Your task to perform on an android device: open device folders in google photos Image 0: 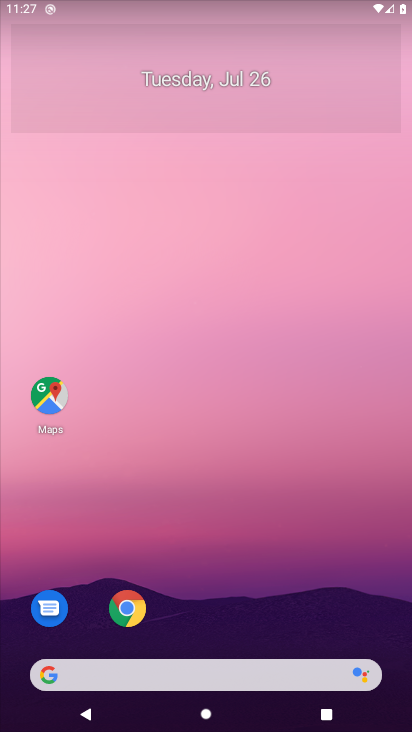
Step 0: press home button
Your task to perform on an android device: open device folders in google photos Image 1: 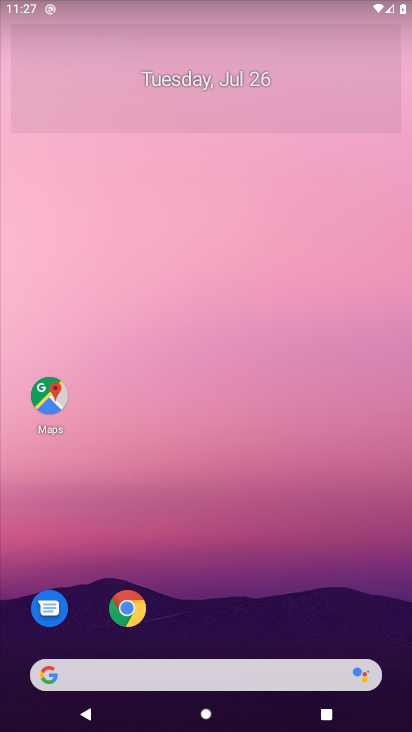
Step 1: drag from (258, 636) to (275, 166)
Your task to perform on an android device: open device folders in google photos Image 2: 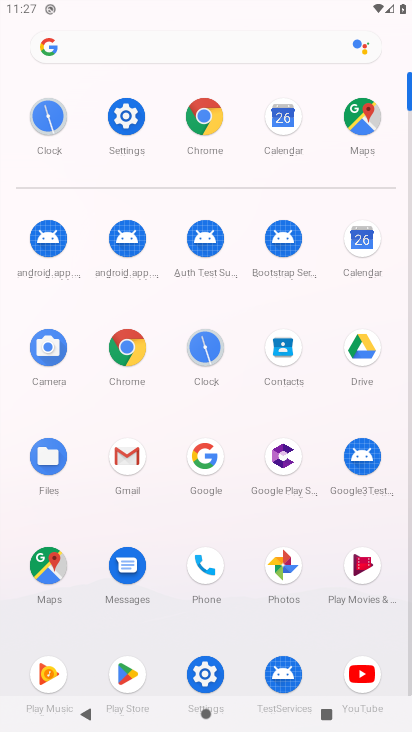
Step 2: click (285, 564)
Your task to perform on an android device: open device folders in google photos Image 3: 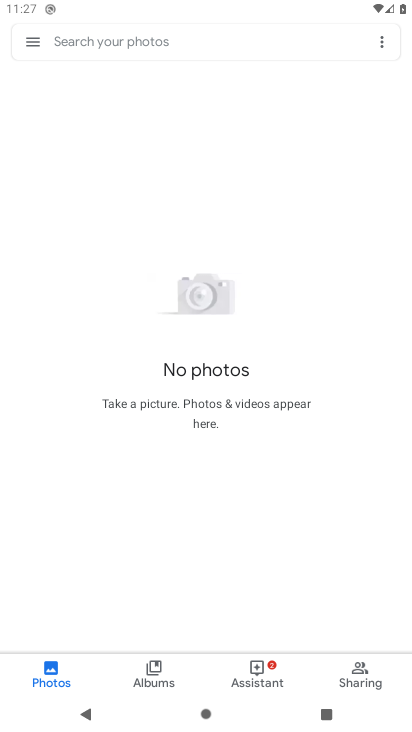
Step 3: click (143, 679)
Your task to perform on an android device: open device folders in google photos Image 4: 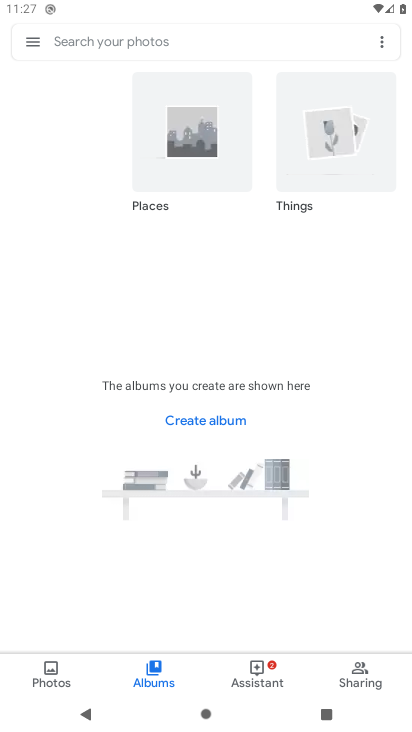
Step 4: click (211, 33)
Your task to perform on an android device: open device folders in google photos Image 5: 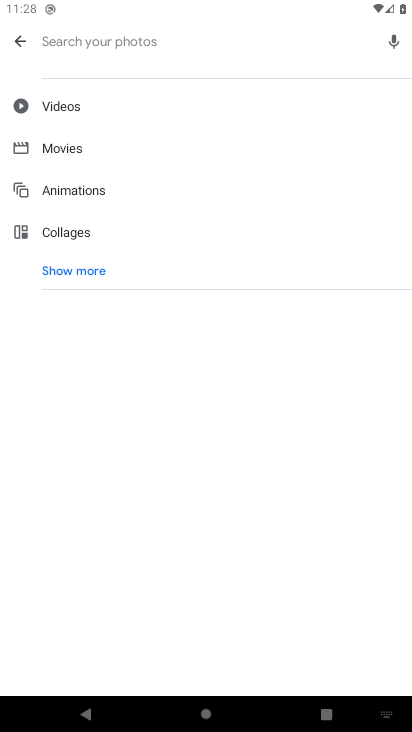
Step 5: type "device folders"
Your task to perform on an android device: open device folders in google photos Image 6: 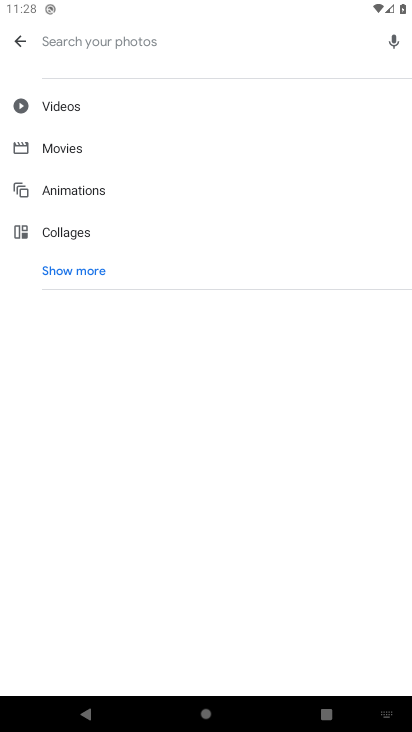
Step 6: click (113, 37)
Your task to perform on an android device: open device folders in google photos Image 7: 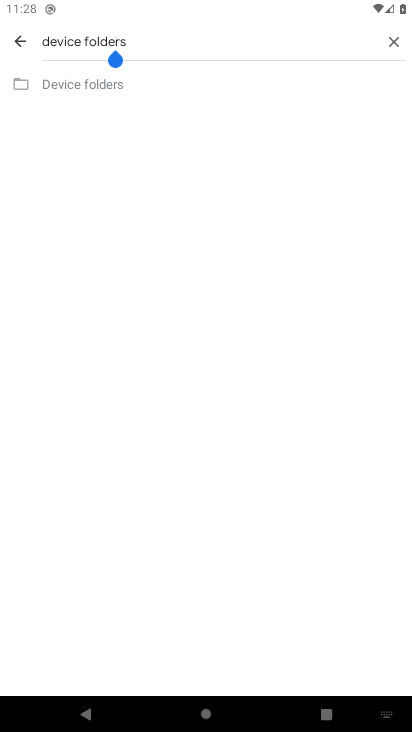
Step 7: click (107, 87)
Your task to perform on an android device: open device folders in google photos Image 8: 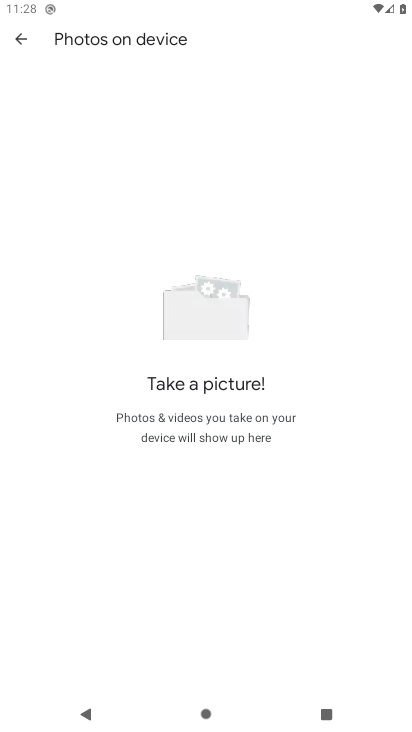
Step 8: task complete